Your task to perform on an android device: turn on javascript in the chrome app Image 0: 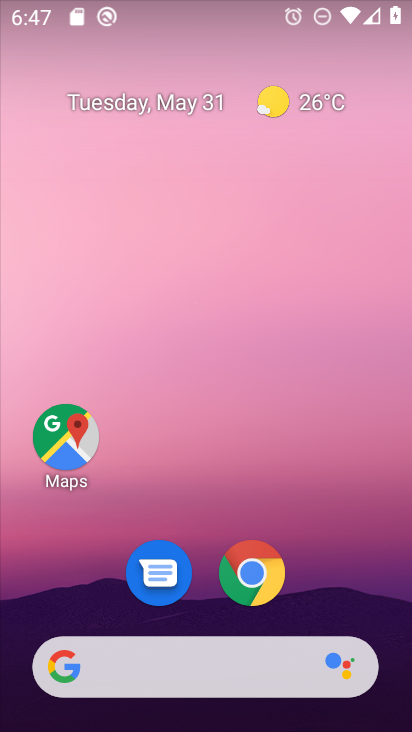
Step 0: drag from (388, 655) to (266, 9)
Your task to perform on an android device: turn on javascript in the chrome app Image 1: 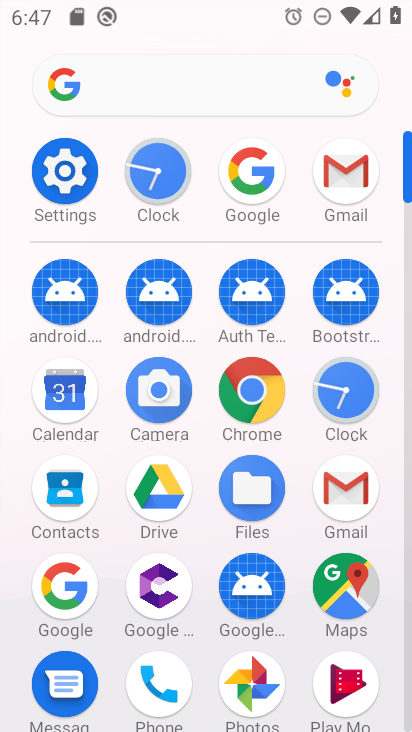
Step 1: click (247, 414)
Your task to perform on an android device: turn on javascript in the chrome app Image 2: 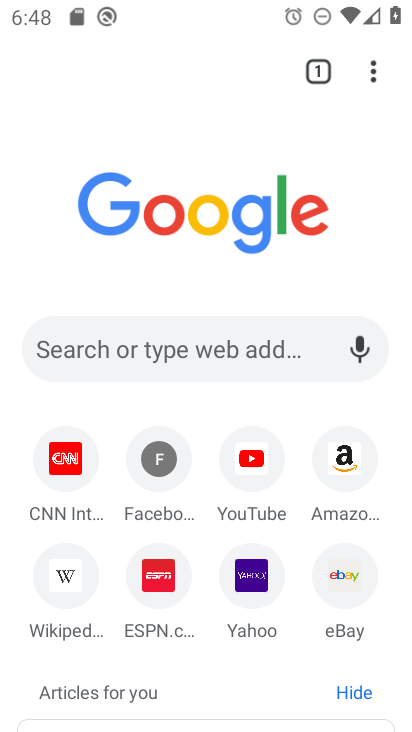
Step 2: click (364, 61)
Your task to perform on an android device: turn on javascript in the chrome app Image 3: 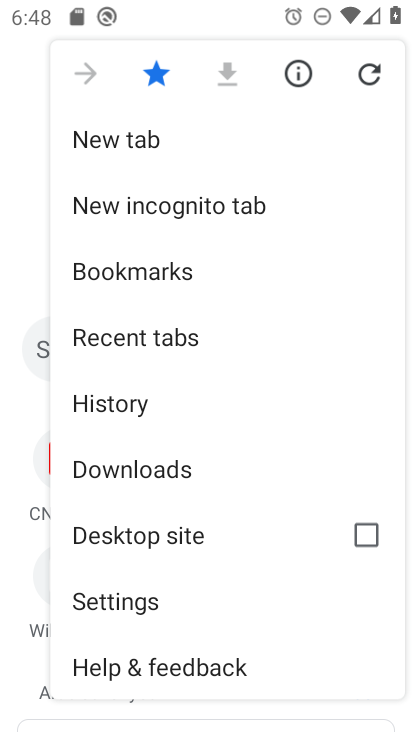
Step 3: click (184, 605)
Your task to perform on an android device: turn on javascript in the chrome app Image 4: 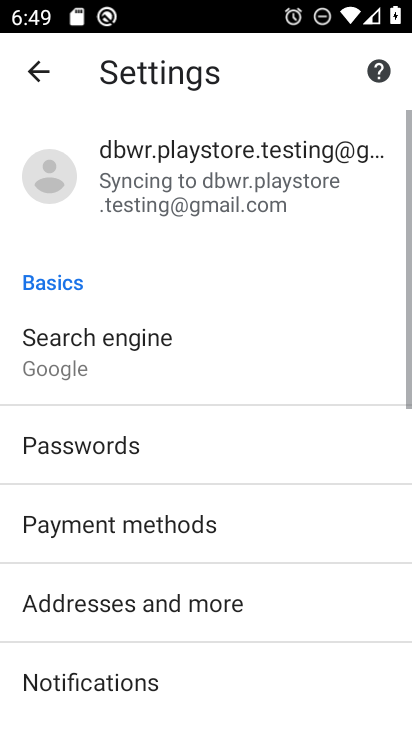
Step 4: drag from (183, 628) to (196, 46)
Your task to perform on an android device: turn on javascript in the chrome app Image 5: 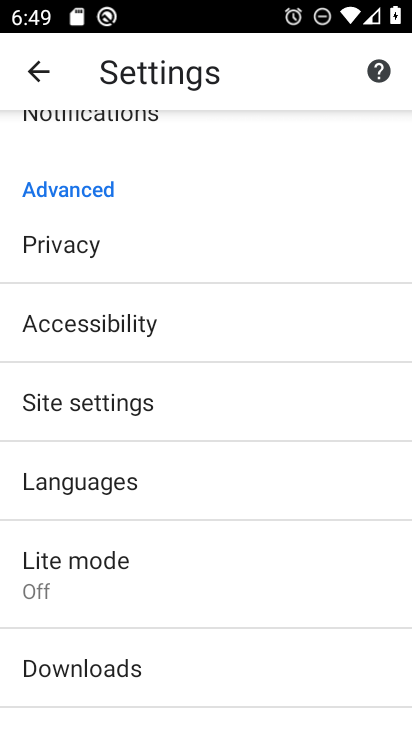
Step 5: click (149, 419)
Your task to perform on an android device: turn on javascript in the chrome app Image 6: 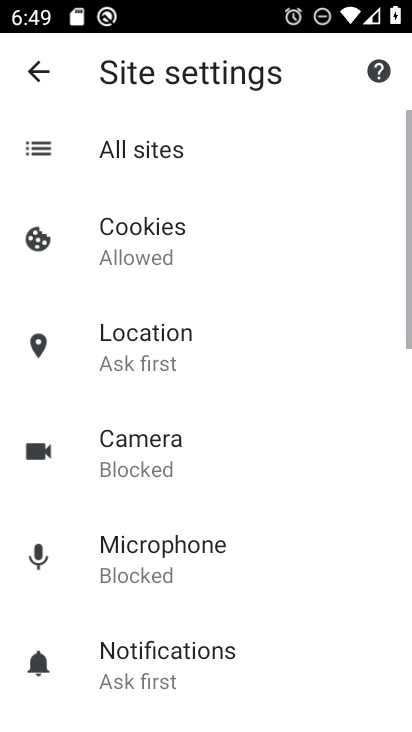
Step 6: drag from (184, 630) to (168, 97)
Your task to perform on an android device: turn on javascript in the chrome app Image 7: 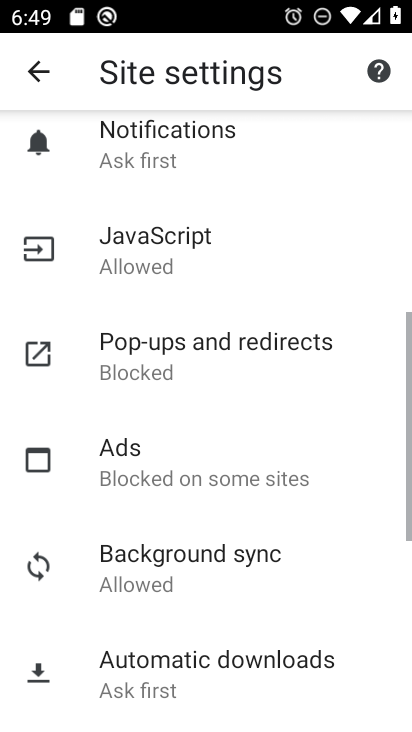
Step 7: click (170, 258)
Your task to perform on an android device: turn on javascript in the chrome app Image 8: 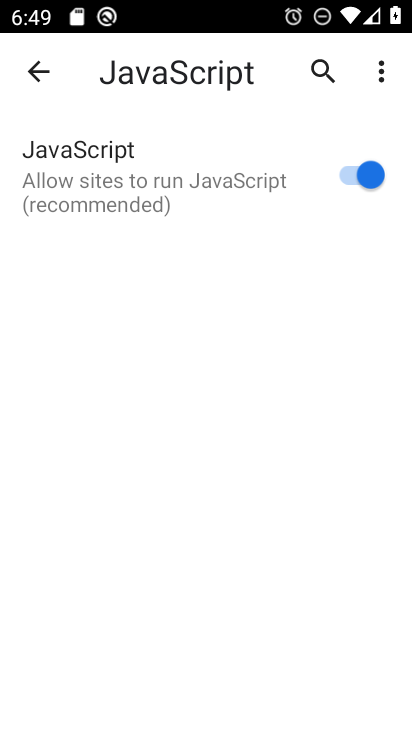
Step 8: task complete